Your task to perform on an android device: Search for "panasonic triple a" on ebay.com, select the first entry, and add it to the cart. Image 0: 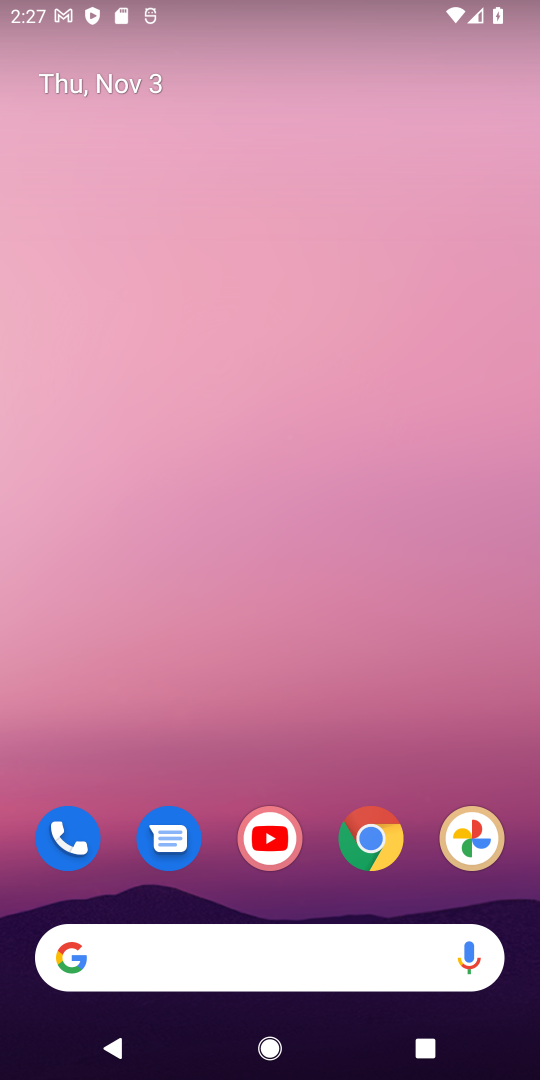
Step 0: drag from (315, 909) to (358, 62)
Your task to perform on an android device: Search for "panasonic triple a" on ebay.com, select the first entry, and add it to the cart. Image 1: 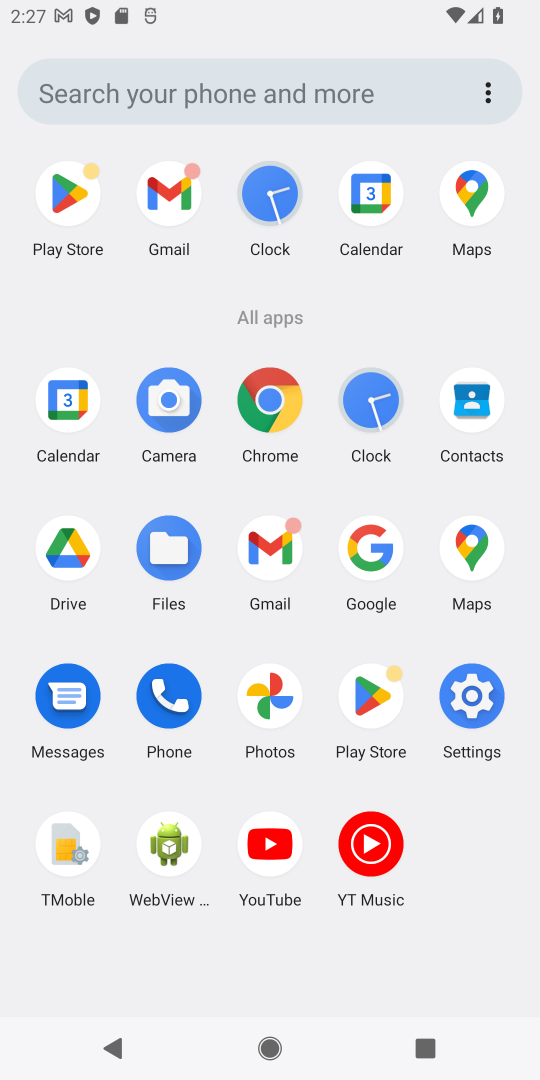
Step 1: click (276, 396)
Your task to perform on an android device: Search for "panasonic triple a" on ebay.com, select the first entry, and add it to the cart. Image 2: 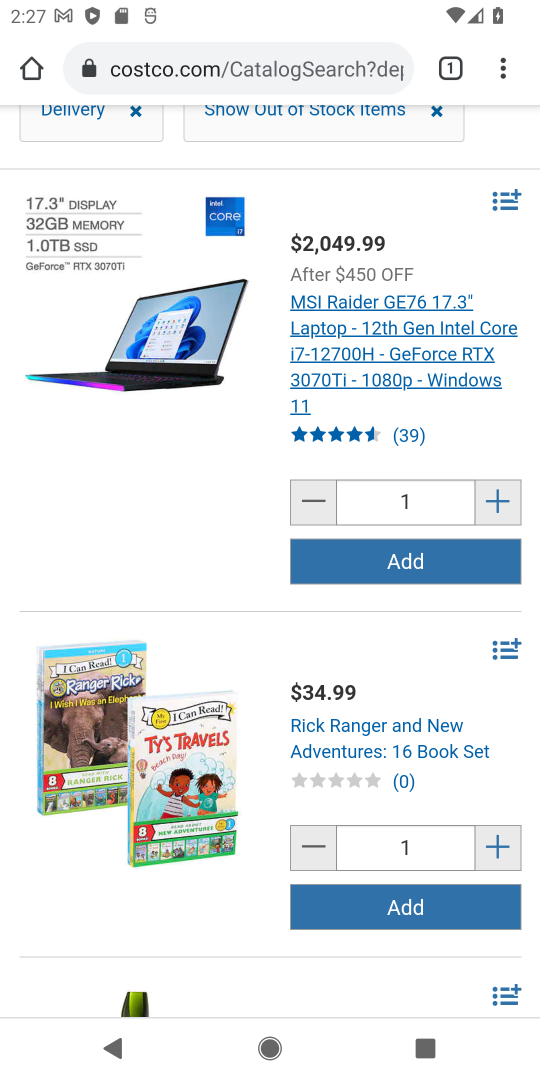
Step 2: click (263, 67)
Your task to perform on an android device: Search for "panasonic triple a" on ebay.com, select the first entry, and add it to the cart. Image 3: 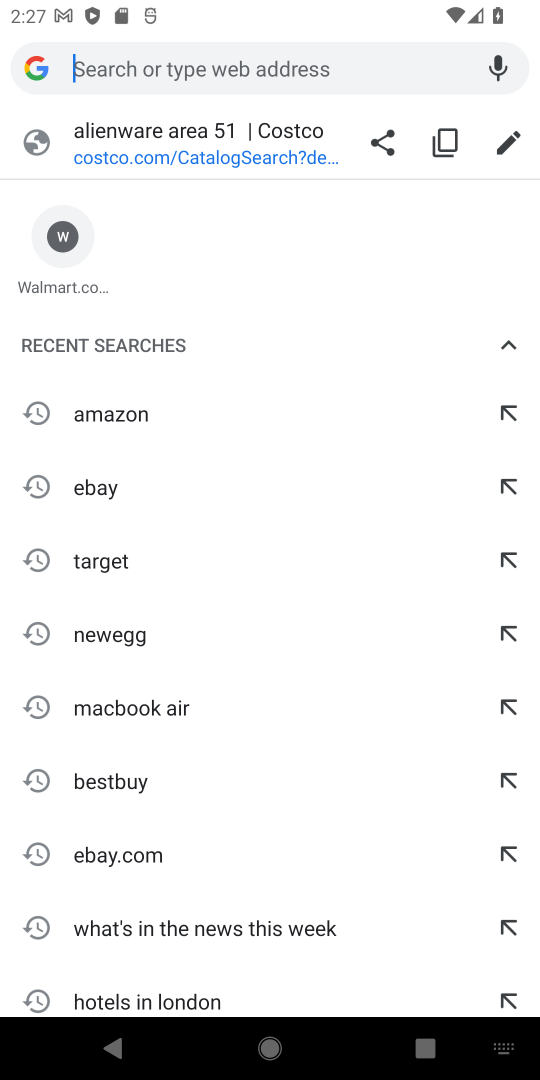
Step 3: type "ebay.com"
Your task to perform on an android device: Search for "panasonic triple a" on ebay.com, select the first entry, and add it to the cart. Image 4: 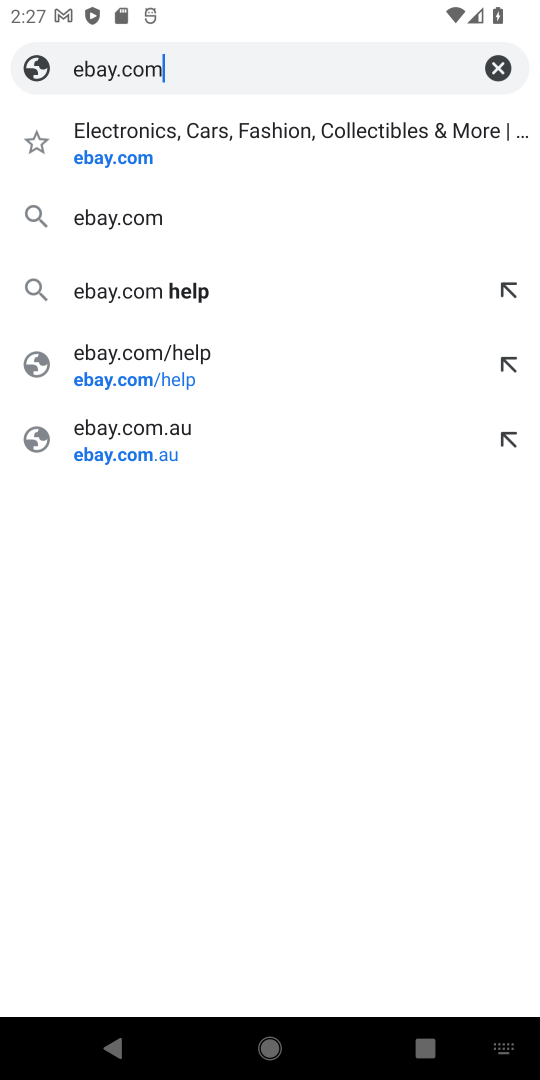
Step 4: press enter
Your task to perform on an android device: Search for "panasonic triple a" on ebay.com, select the first entry, and add it to the cart. Image 5: 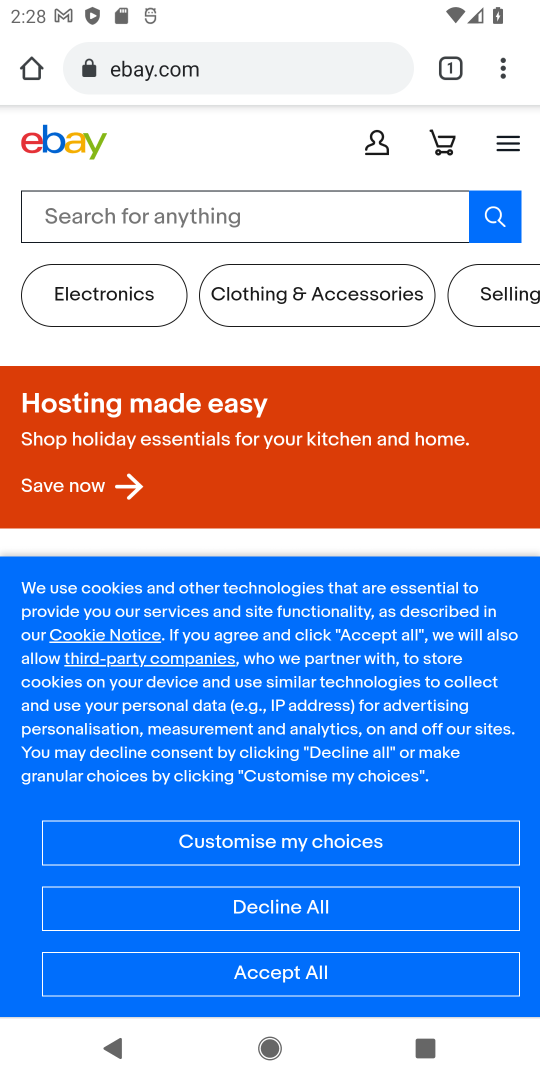
Step 5: click (369, 215)
Your task to perform on an android device: Search for "panasonic triple a" on ebay.com, select the first entry, and add it to the cart. Image 6: 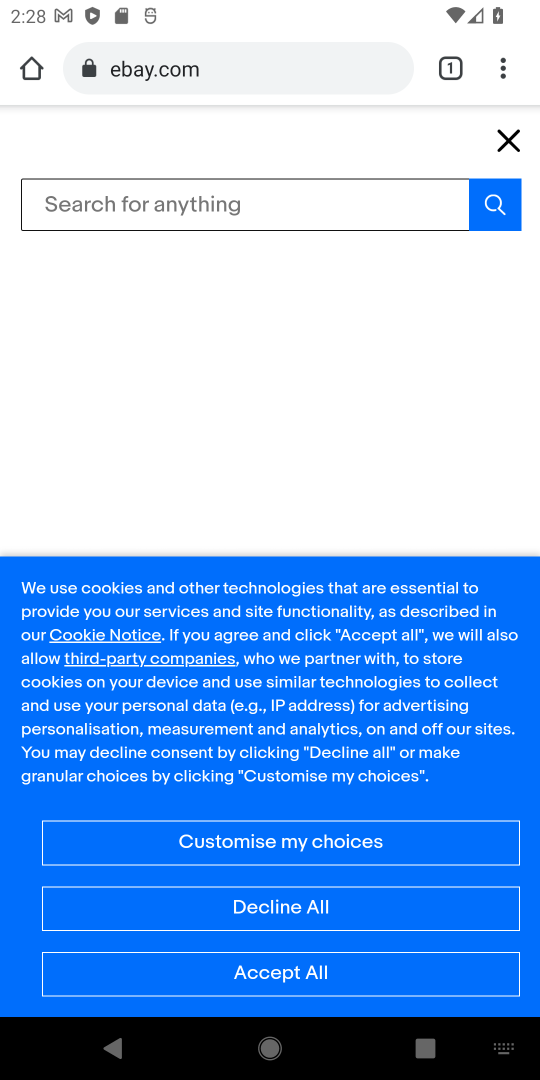
Step 6: type "panasonic triple a"
Your task to perform on an android device: Search for "panasonic triple a" on ebay.com, select the first entry, and add it to the cart. Image 7: 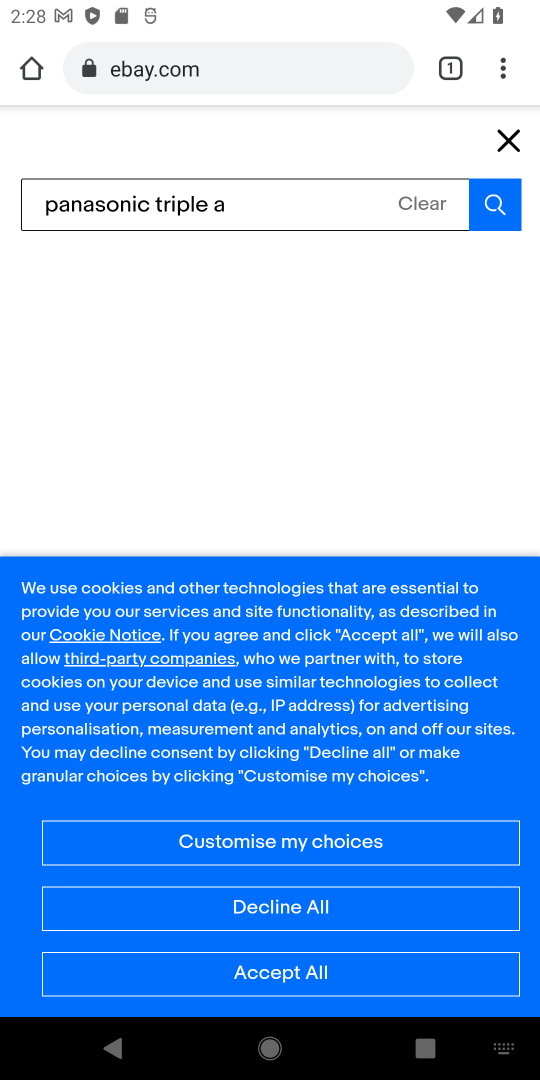
Step 7: click (483, 210)
Your task to perform on an android device: Search for "panasonic triple a" on ebay.com, select the first entry, and add it to the cart. Image 8: 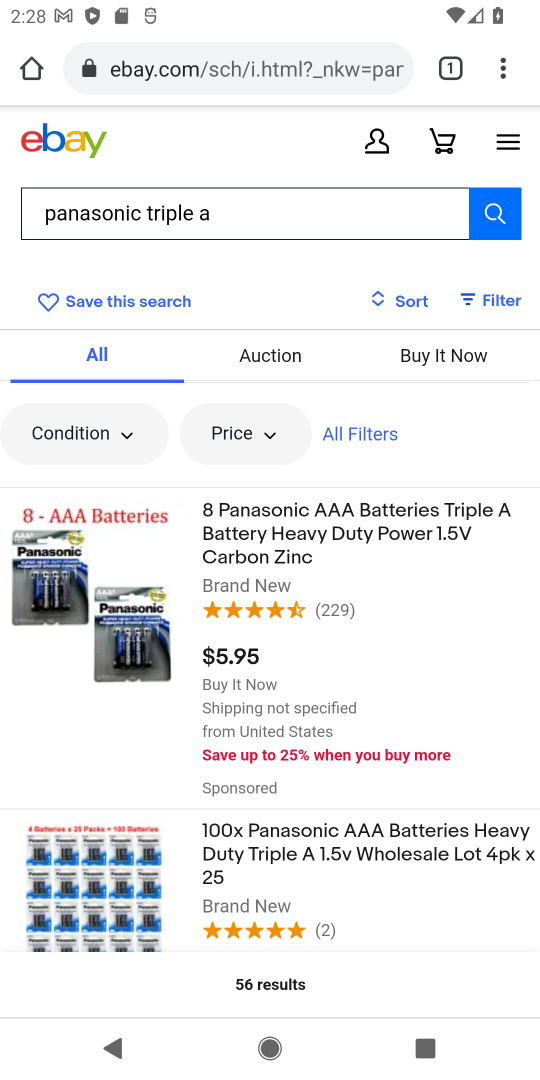
Step 8: click (221, 557)
Your task to perform on an android device: Search for "panasonic triple a" on ebay.com, select the first entry, and add it to the cart. Image 9: 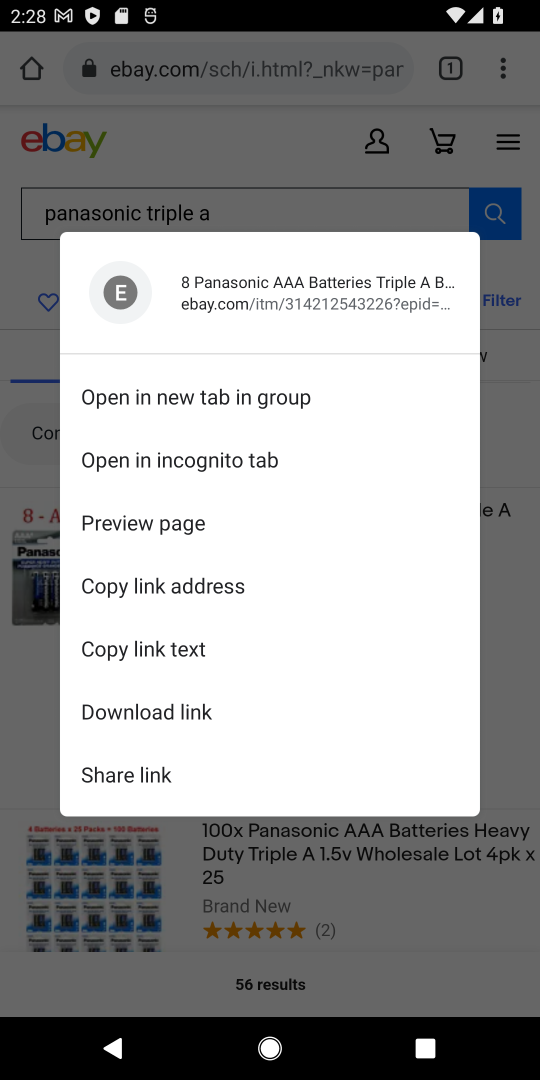
Step 9: click (45, 568)
Your task to perform on an android device: Search for "panasonic triple a" on ebay.com, select the first entry, and add it to the cart. Image 10: 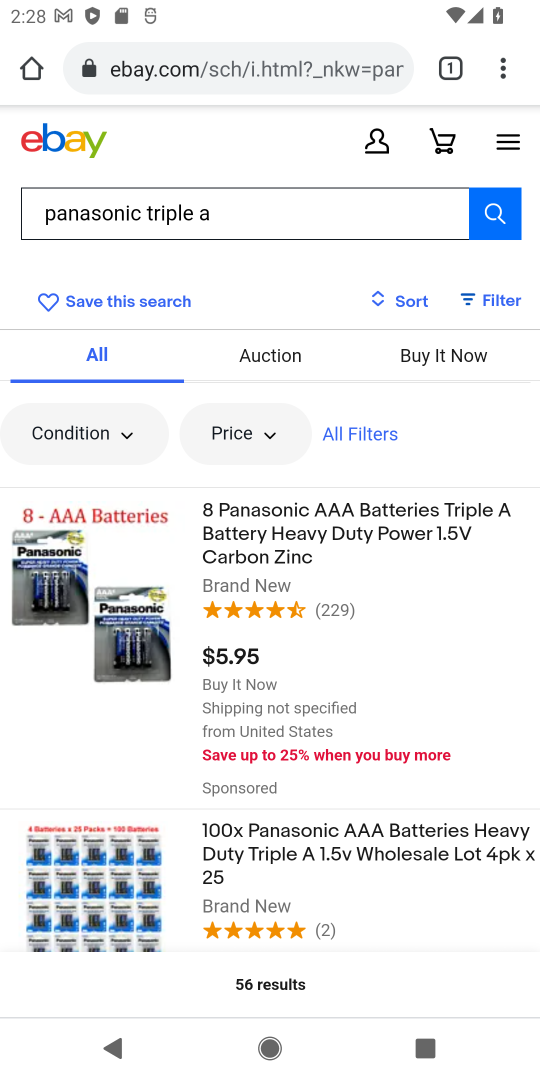
Step 10: click (45, 568)
Your task to perform on an android device: Search for "panasonic triple a" on ebay.com, select the first entry, and add it to the cart. Image 11: 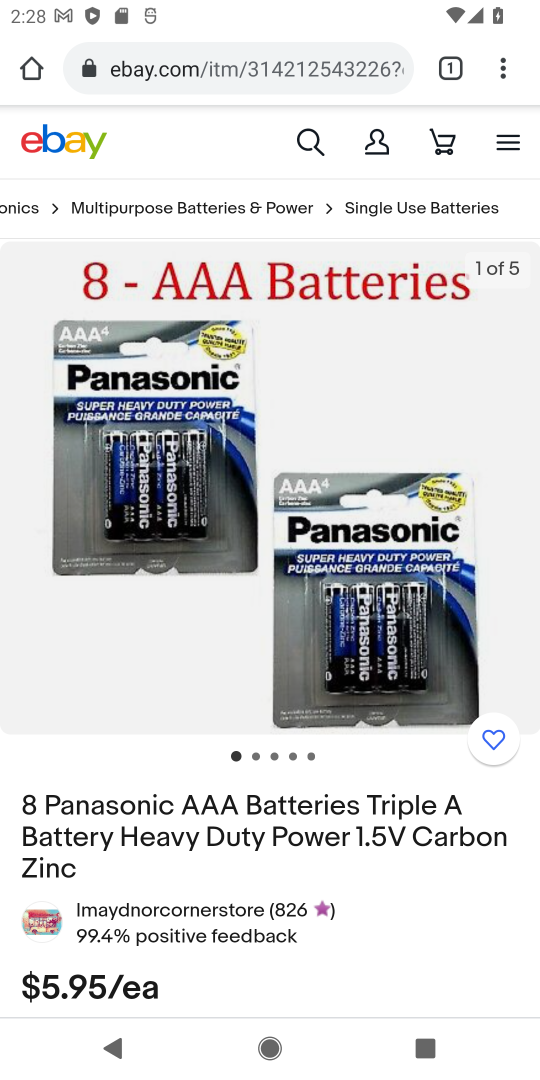
Step 11: drag from (329, 800) to (279, 390)
Your task to perform on an android device: Search for "panasonic triple a" on ebay.com, select the first entry, and add it to the cart. Image 12: 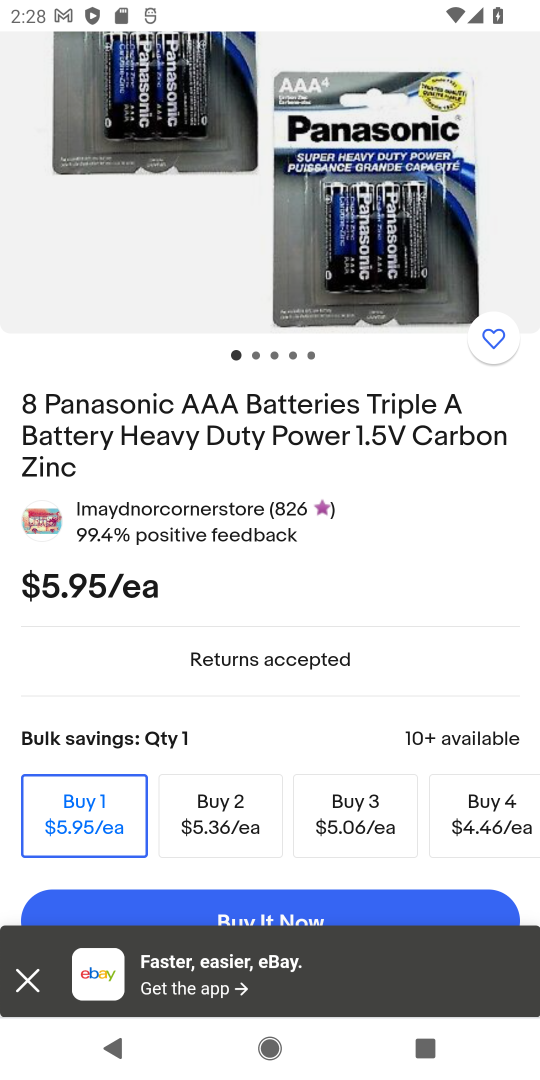
Step 12: drag from (293, 735) to (270, 438)
Your task to perform on an android device: Search for "panasonic triple a" on ebay.com, select the first entry, and add it to the cart. Image 13: 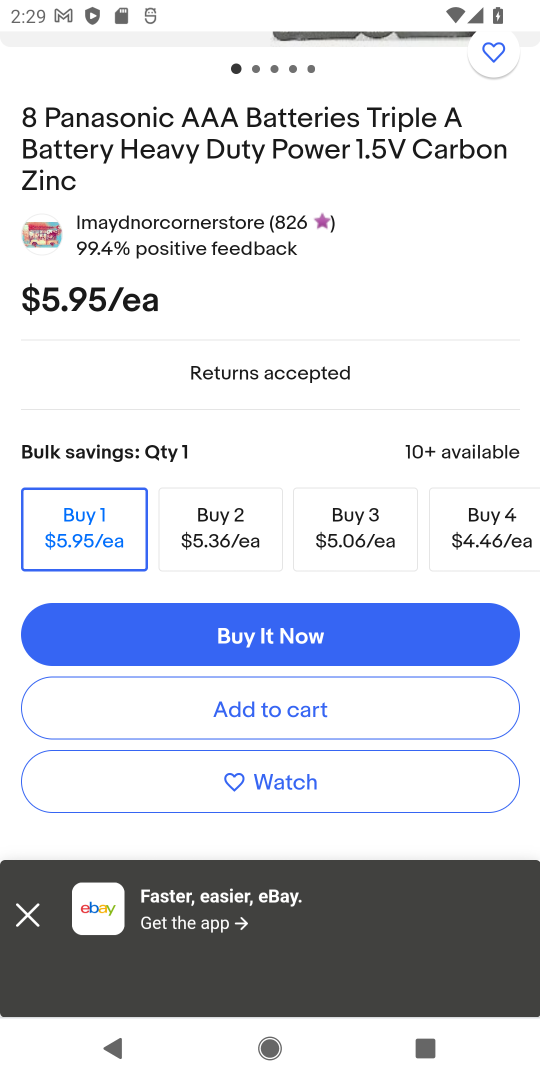
Step 13: click (329, 706)
Your task to perform on an android device: Search for "panasonic triple a" on ebay.com, select the first entry, and add it to the cart. Image 14: 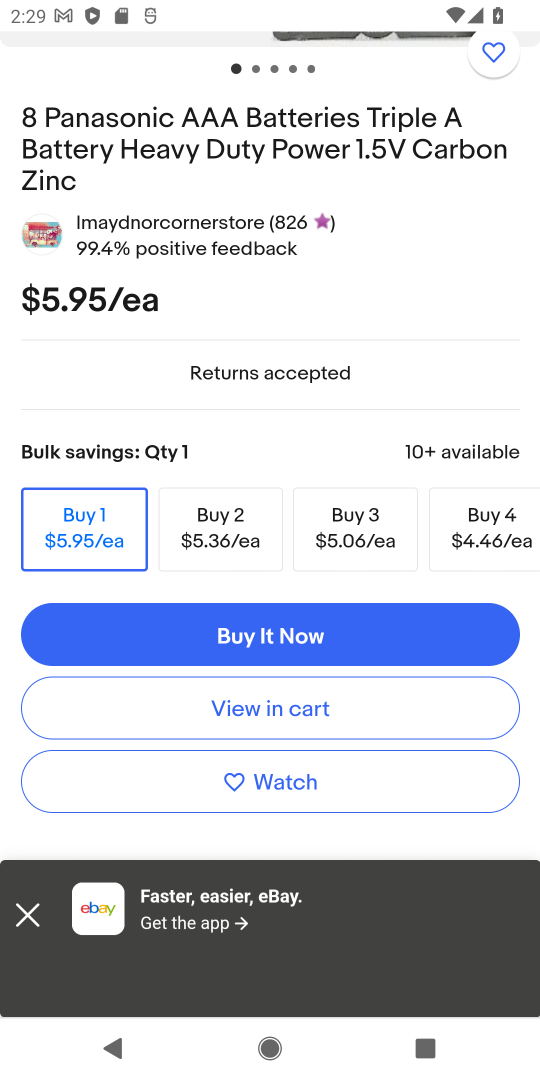
Step 14: task complete